Your task to perform on an android device: toggle notifications settings in the gmail app Image 0: 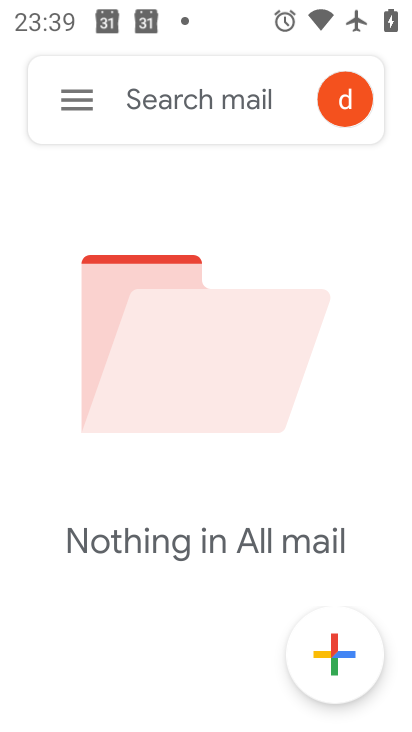
Step 0: click (83, 86)
Your task to perform on an android device: toggle notifications settings in the gmail app Image 1: 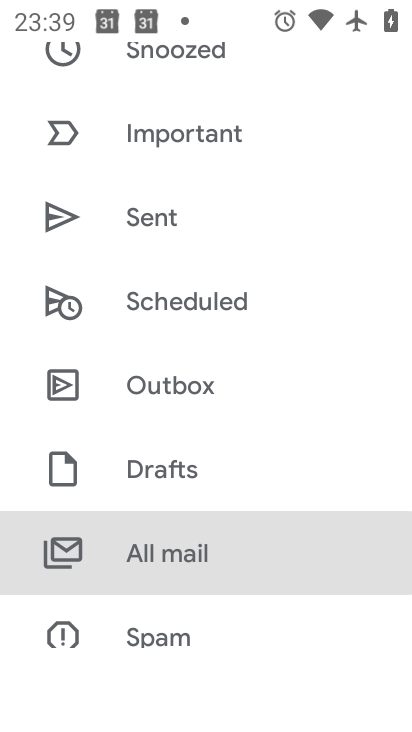
Step 1: drag from (257, 504) to (267, 167)
Your task to perform on an android device: toggle notifications settings in the gmail app Image 2: 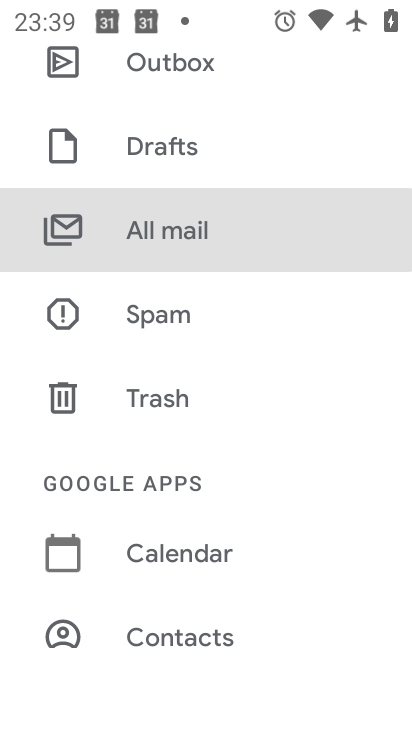
Step 2: drag from (295, 532) to (308, 207)
Your task to perform on an android device: toggle notifications settings in the gmail app Image 3: 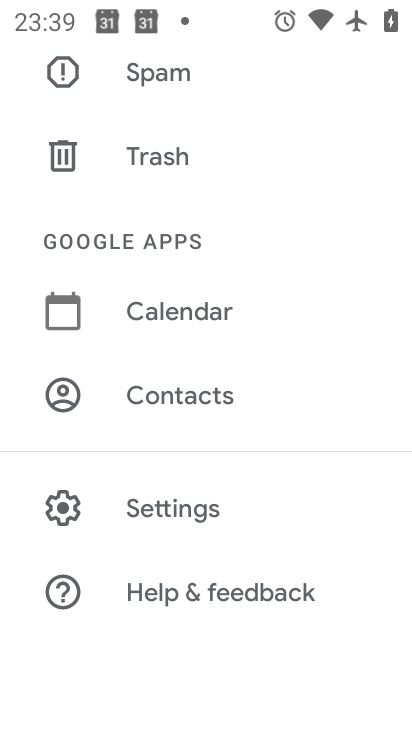
Step 3: click (189, 496)
Your task to perform on an android device: toggle notifications settings in the gmail app Image 4: 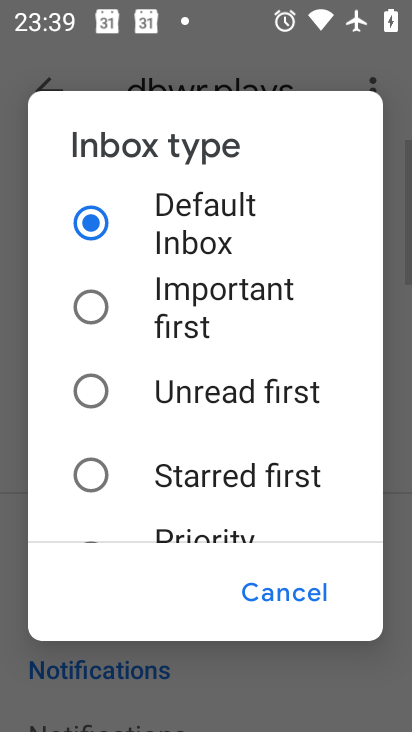
Step 4: click (263, 586)
Your task to perform on an android device: toggle notifications settings in the gmail app Image 5: 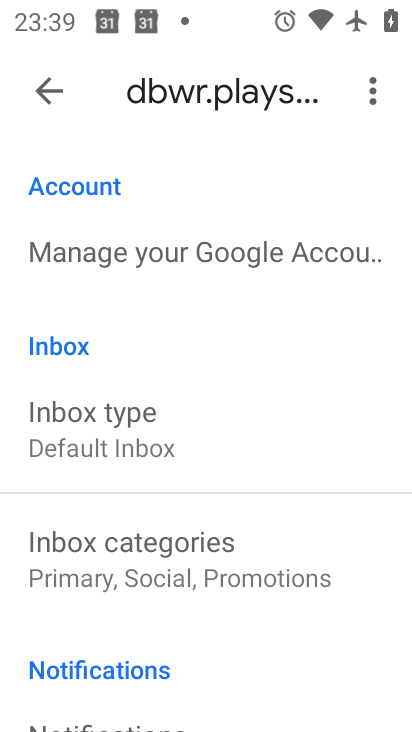
Step 5: drag from (191, 544) to (204, 261)
Your task to perform on an android device: toggle notifications settings in the gmail app Image 6: 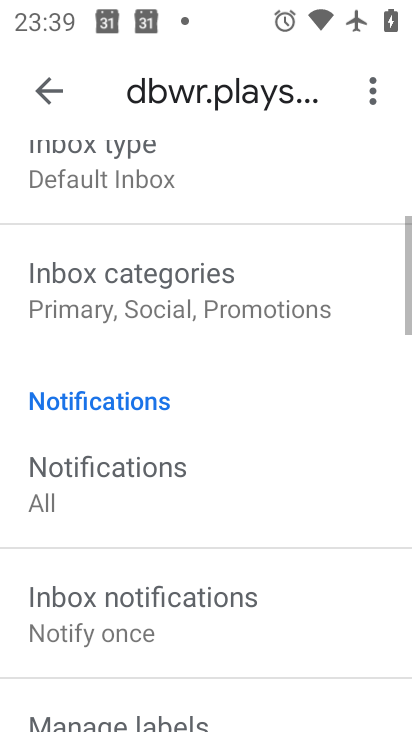
Step 6: drag from (199, 557) to (193, 220)
Your task to perform on an android device: toggle notifications settings in the gmail app Image 7: 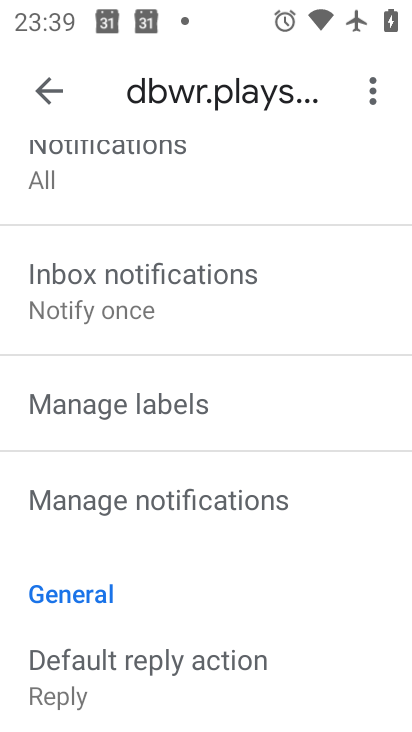
Step 7: click (170, 498)
Your task to perform on an android device: toggle notifications settings in the gmail app Image 8: 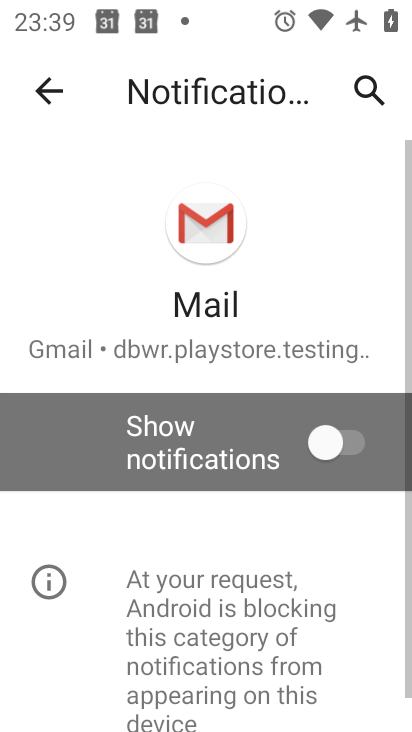
Step 8: drag from (262, 600) to (246, 303)
Your task to perform on an android device: toggle notifications settings in the gmail app Image 9: 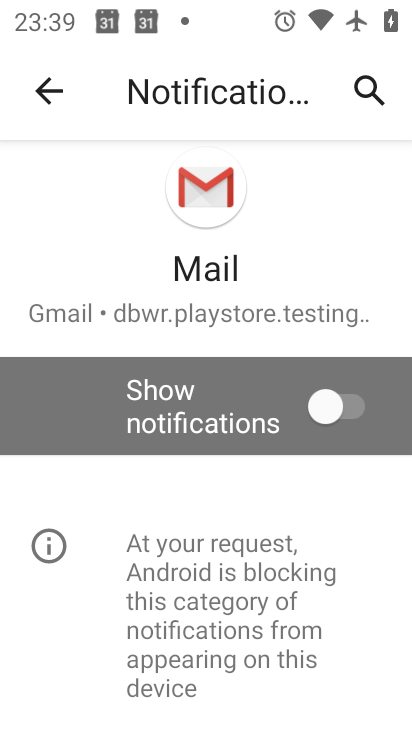
Step 9: click (343, 404)
Your task to perform on an android device: toggle notifications settings in the gmail app Image 10: 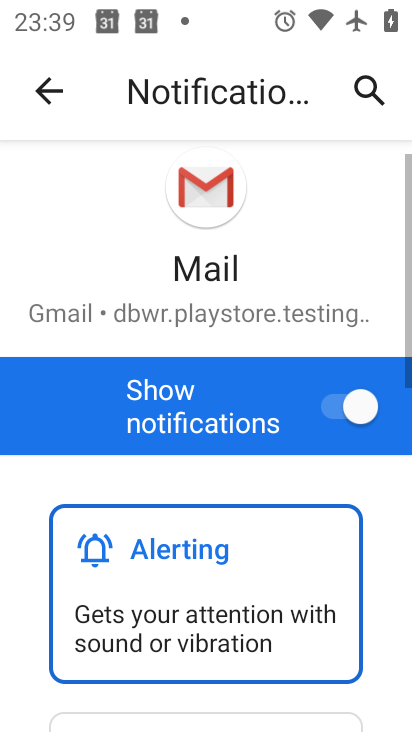
Step 10: task complete